Your task to perform on an android device: Clear the shopping cart on newegg. Image 0: 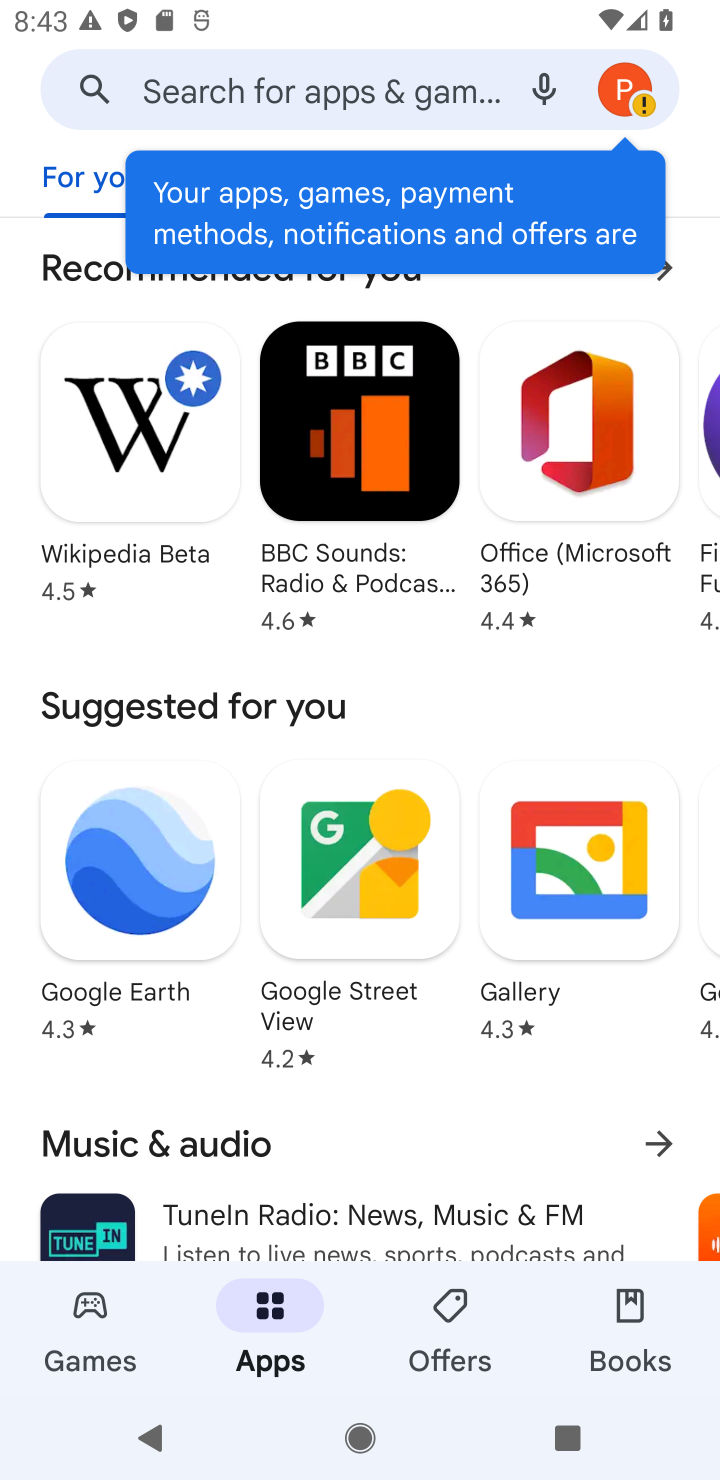
Step 0: press home button
Your task to perform on an android device: Clear the shopping cart on newegg. Image 1: 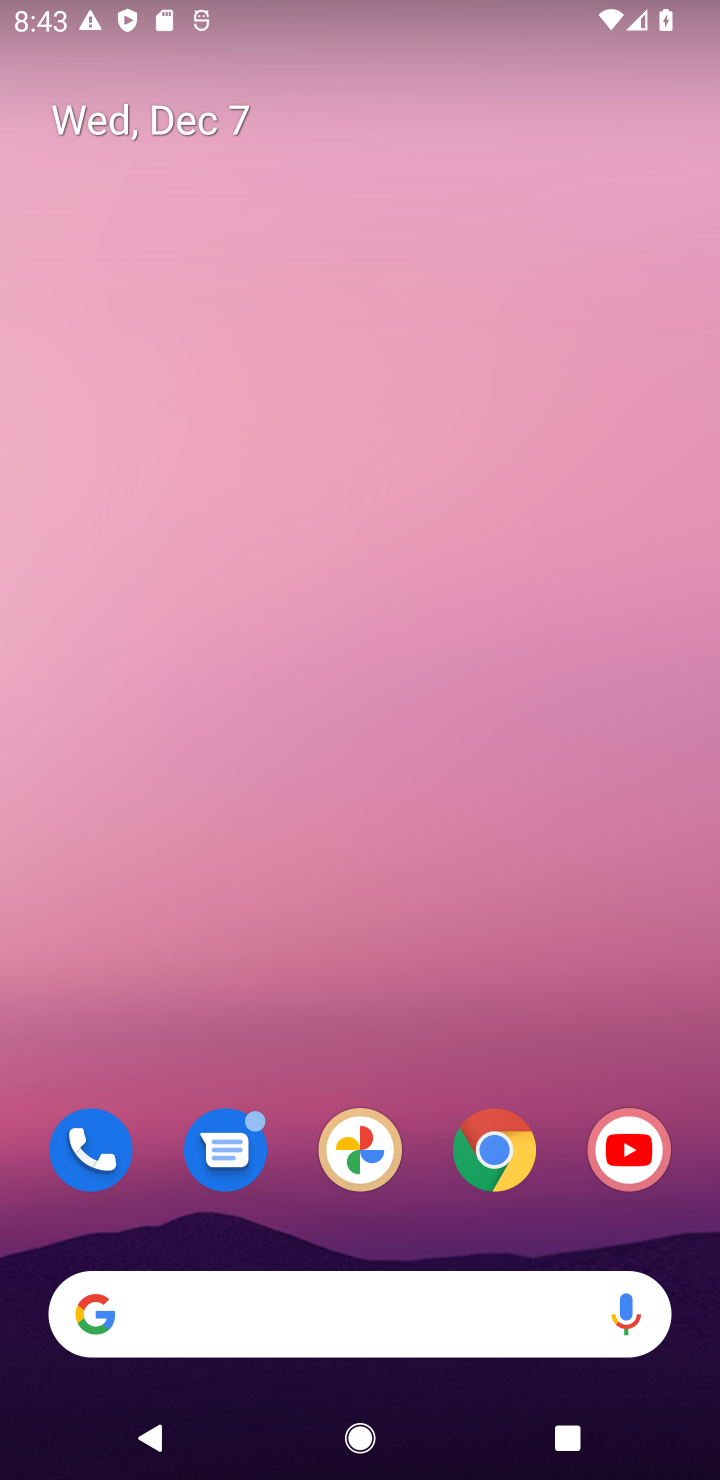
Step 1: click (486, 1163)
Your task to perform on an android device: Clear the shopping cart on newegg. Image 2: 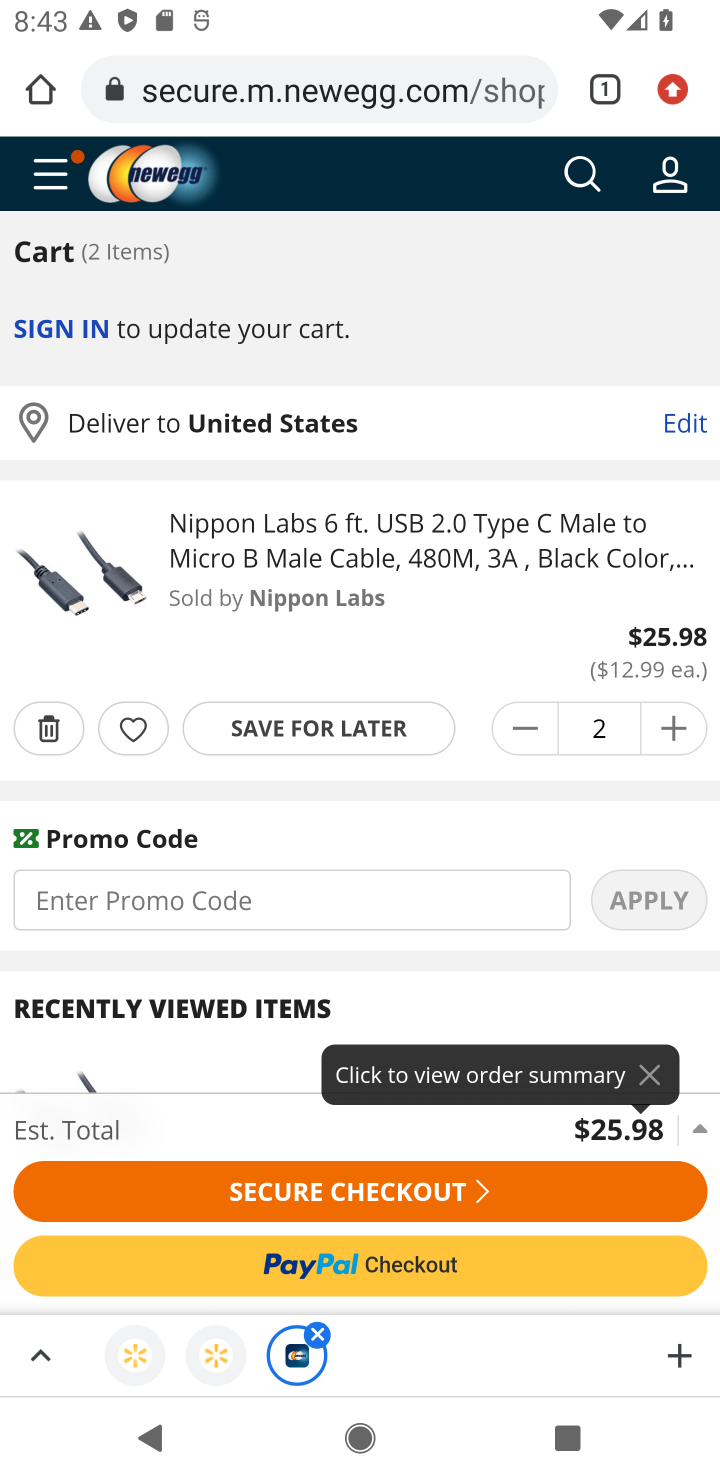
Step 2: click (47, 731)
Your task to perform on an android device: Clear the shopping cart on newegg. Image 3: 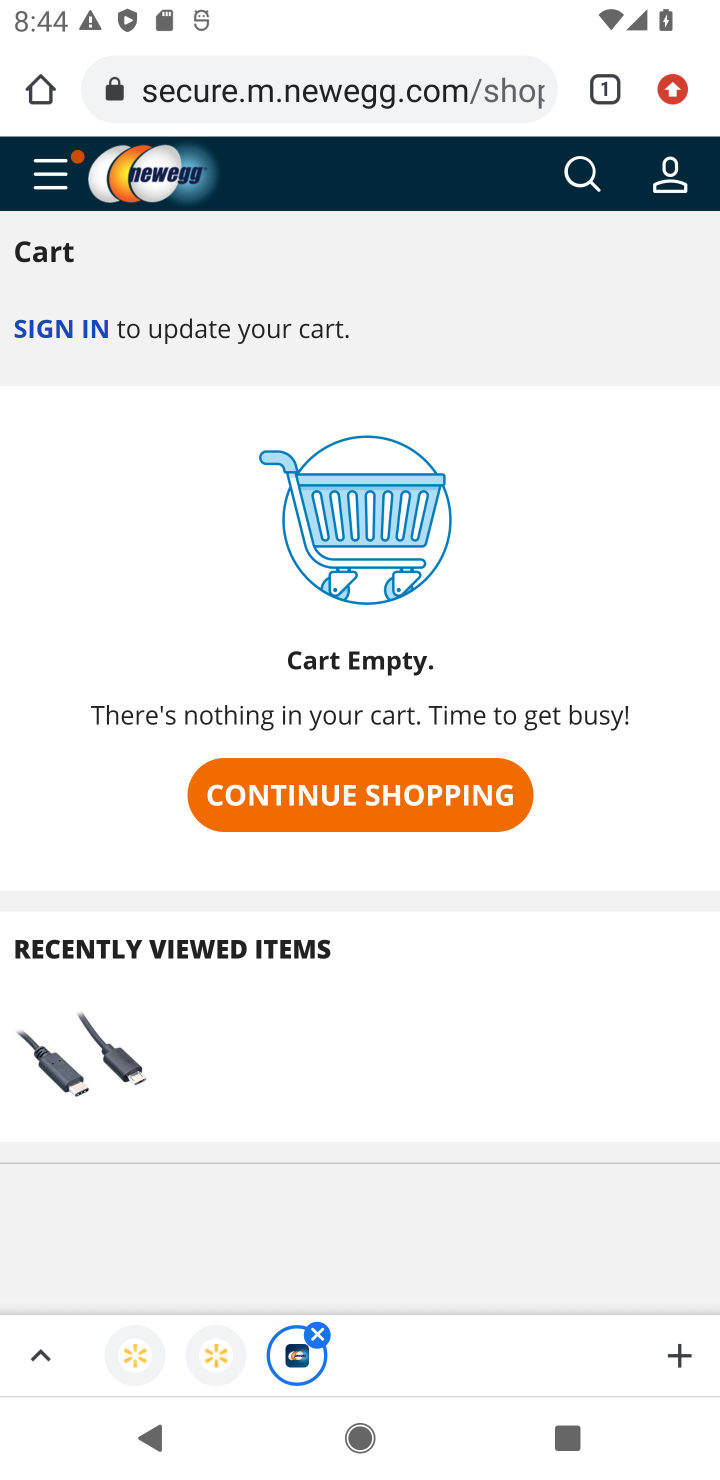
Step 3: task complete